Your task to perform on an android device: When is my next meeting? Image 0: 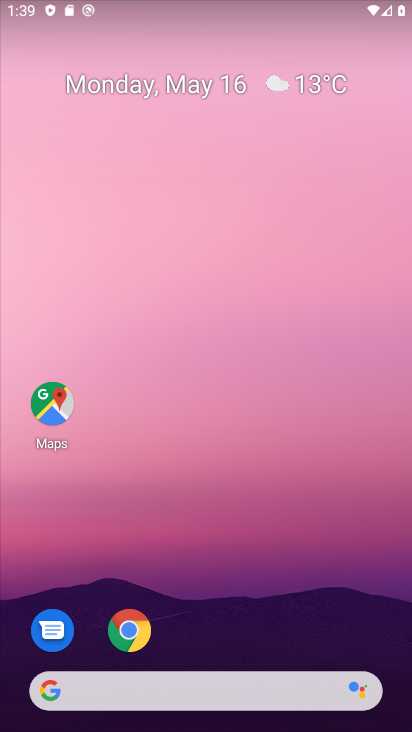
Step 0: drag from (353, 609) to (338, 220)
Your task to perform on an android device: When is my next meeting? Image 1: 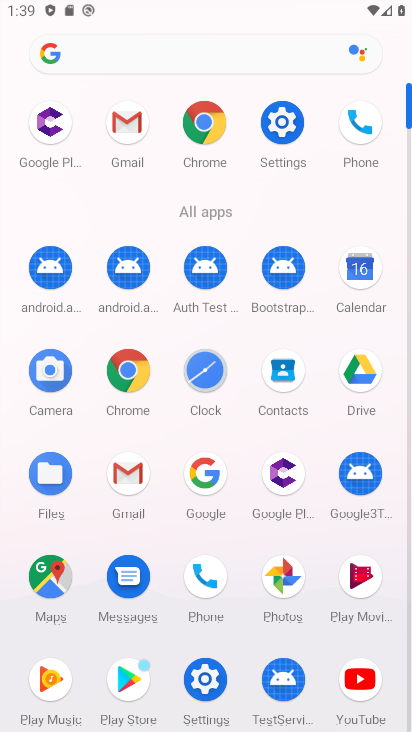
Step 1: click (358, 274)
Your task to perform on an android device: When is my next meeting? Image 2: 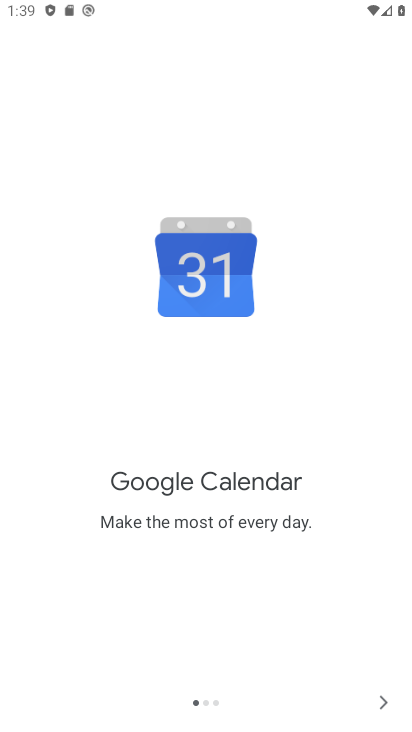
Step 2: click (377, 710)
Your task to perform on an android device: When is my next meeting? Image 3: 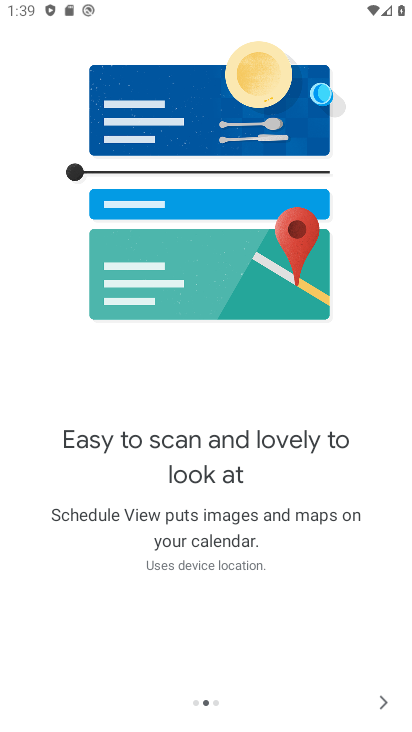
Step 3: click (380, 706)
Your task to perform on an android device: When is my next meeting? Image 4: 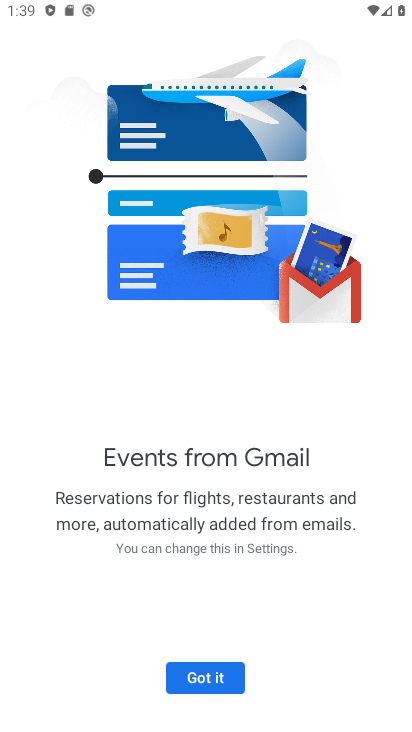
Step 4: click (236, 671)
Your task to perform on an android device: When is my next meeting? Image 5: 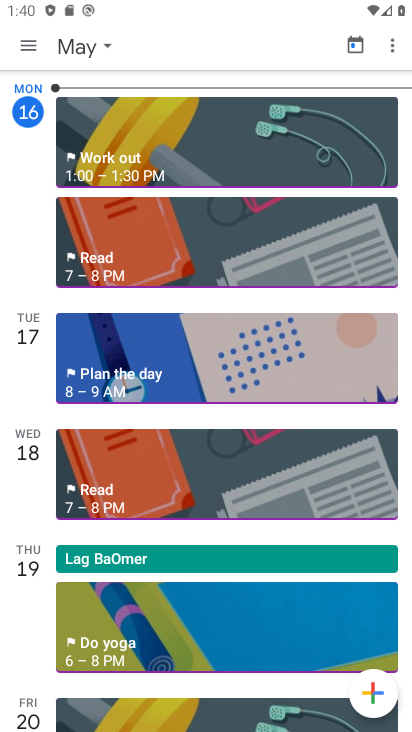
Step 5: drag from (111, 513) to (170, 282)
Your task to perform on an android device: When is my next meeting? Image 6: 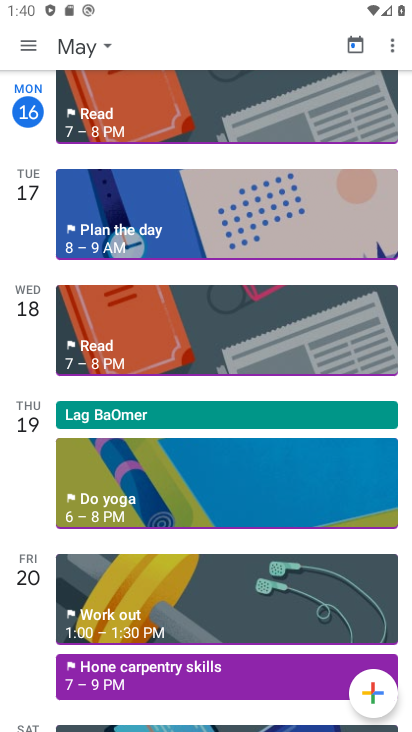
Step 6: drag from (165, 646) to (221, 373)
Your task to perform on an android device: When is my next meeting? Image 7: 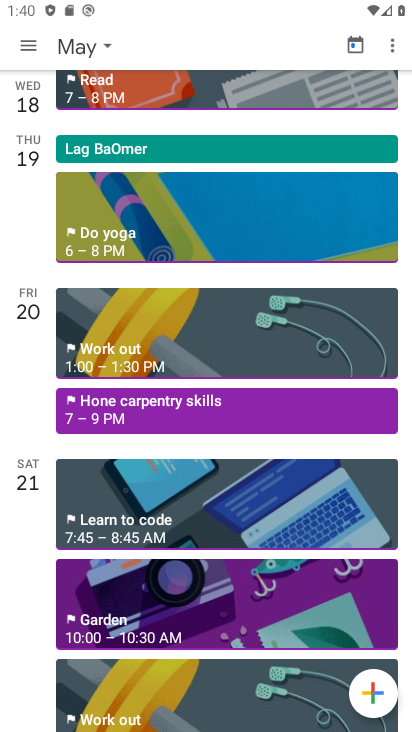
Step 7: drag from (233, 661) to (272, 393)
Your task to perform on an android device: When is my next meeting? Image 8: 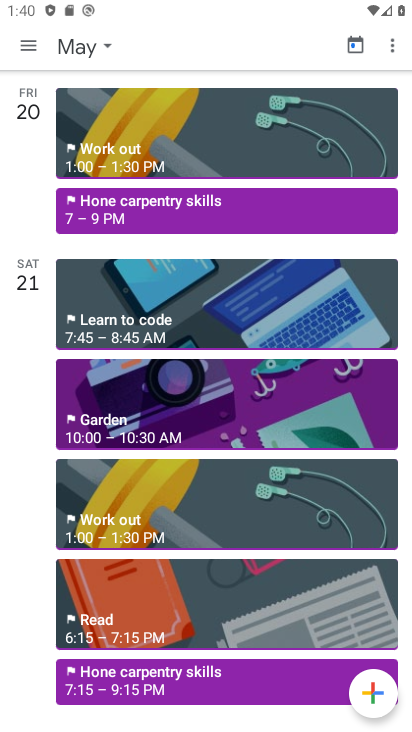
Step 8: drag from (244, 665) to (298, 434)
Your task to perform on an android device: When is my next meeting? Image 9: 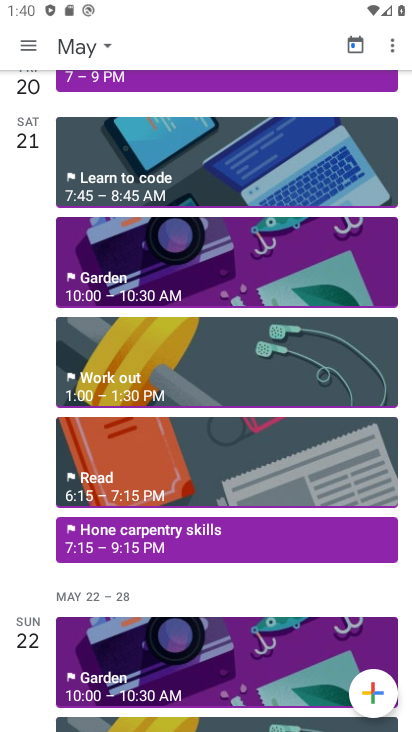
Step 9: drag from (255, 632) to (280, 342)
Your task to perform on an android device: When is my next meeting? Image 10: 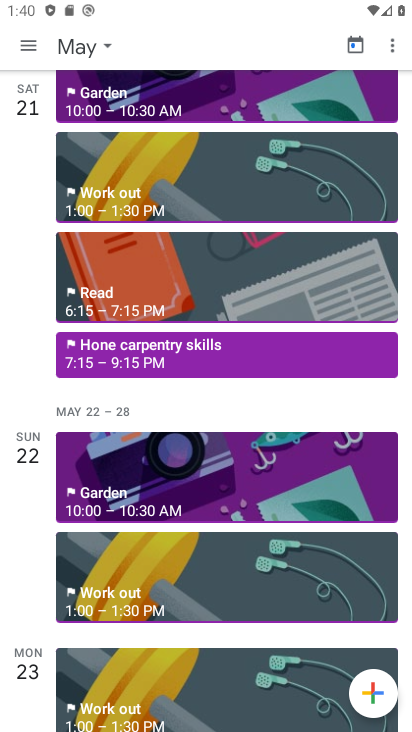
Step 10: drag from (264, 618) to (284, 344)
Your task to perform on an android device: When is my next meeting? Image 11: 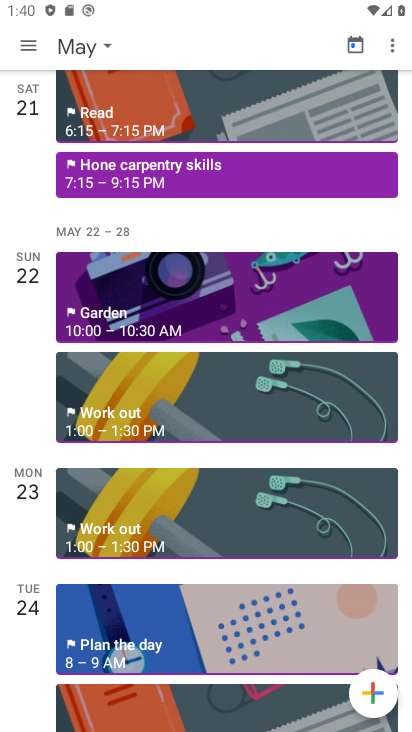
Step 11: drag from (252, 659) to (291, 297)
Your task to perform on an android device: When is my next meeting? Image 12: 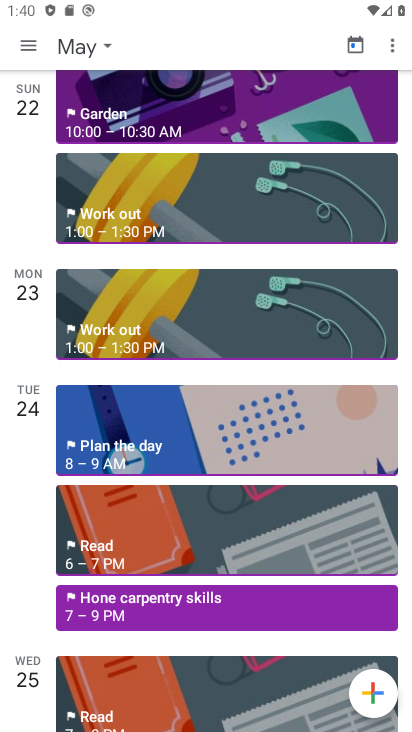
Step 12: drag from (285, 636) to (314, 324)
Your task to perform on an android device: When is my next meeting? Image 13: 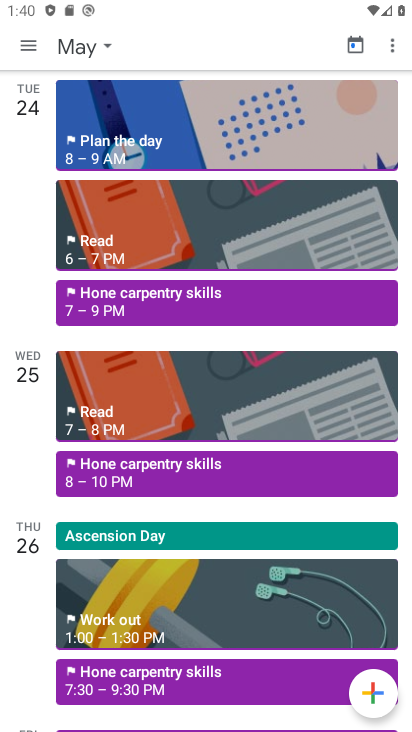
Step 13: drag from (274, 594) to (297, 287)
Your task to perform on an android device: When is my next meeting? Image 14: 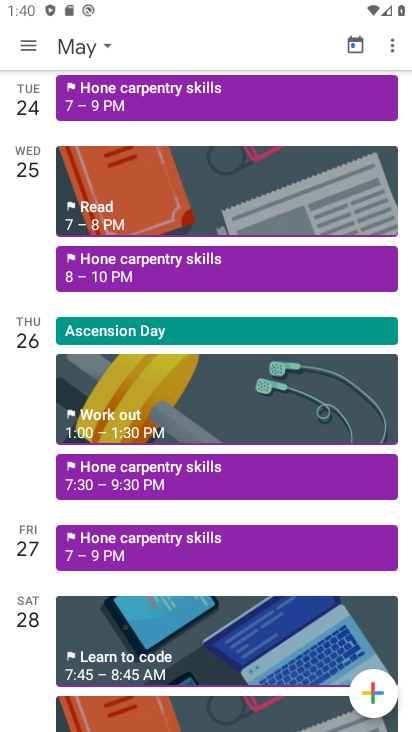
Step 14: drag from (267, 643) to (326, 293)
Your task to perform on an android device: When is my next meeting? Image 15: 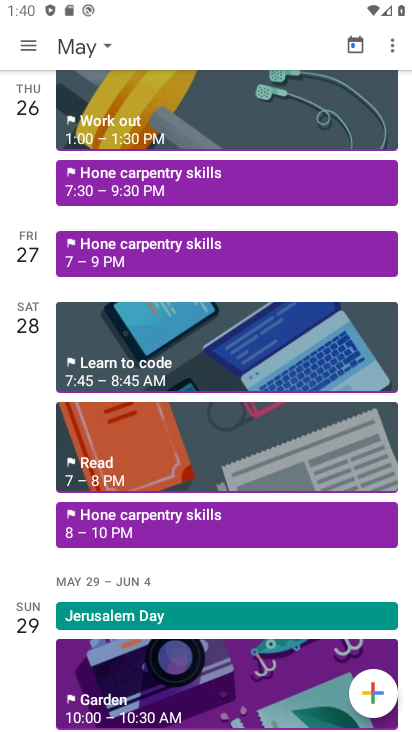
Step 15: drag from (263, 677) to (323, 327)
Your task to perform on an android device: When is my next meeting? Image 16: 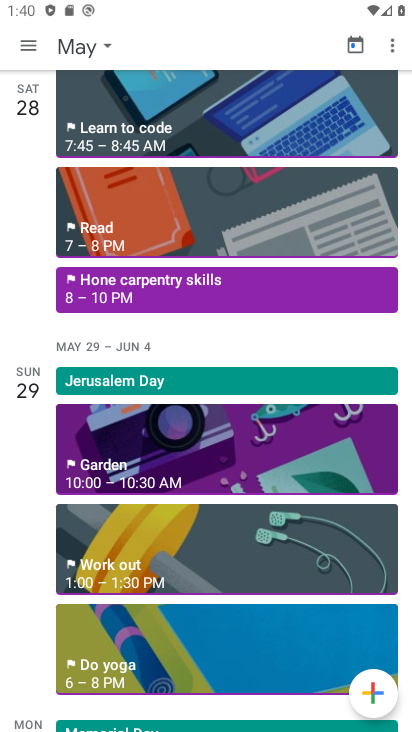
Step 16: drag from (253, 660) to (314, 323)
Your task to perform on an android device: When is my next meeting? Image 17: 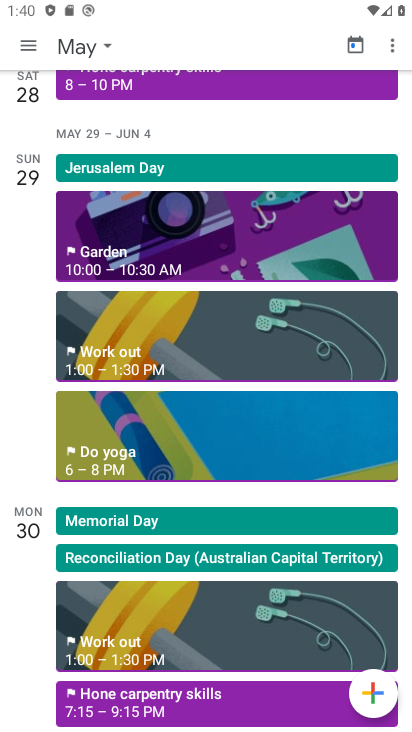
Step 17: drag from (243, 649) to (295, 293)
Your task to perform on an android device: When is my next meeting? Image 18: 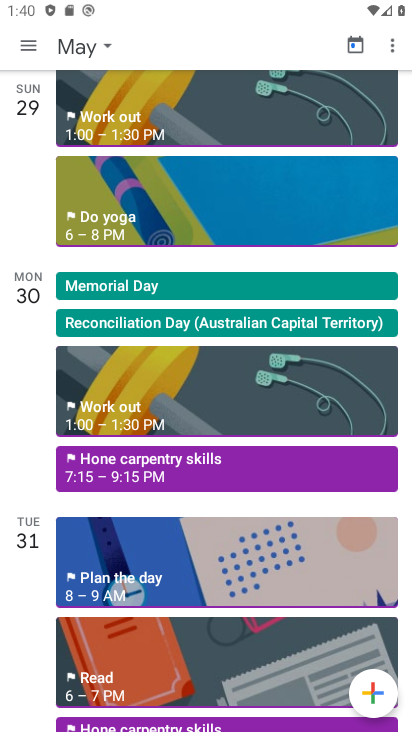
Step 18: drag from (263, 588) to (292, 310)
Your task to perform on an android device: When is my next meeting? Image 19: 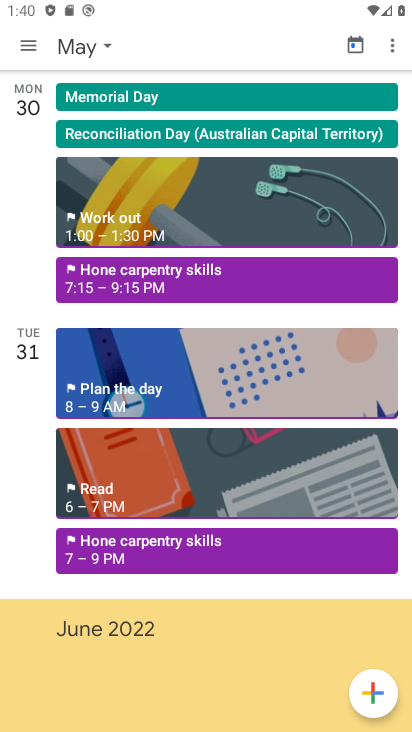
Step 19: drag from (285, 578) to (350, 206)
Your task to perform on an android device: When is my next meeting? Image 20: 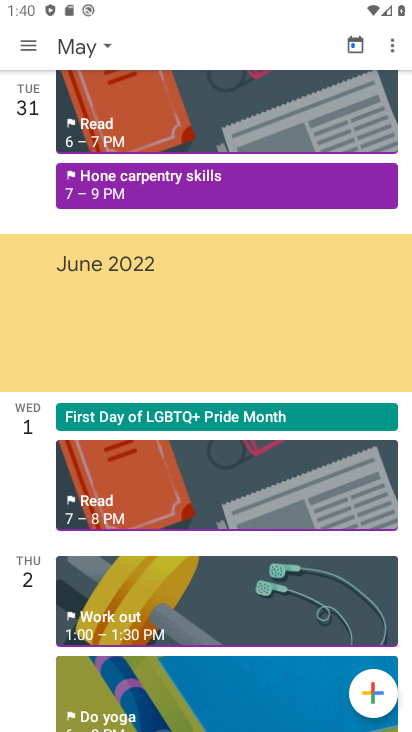
Step 20: drag from (267, 672) to (297, 351)
Your task to perform on an android device: When is my next meeting? Image 21: 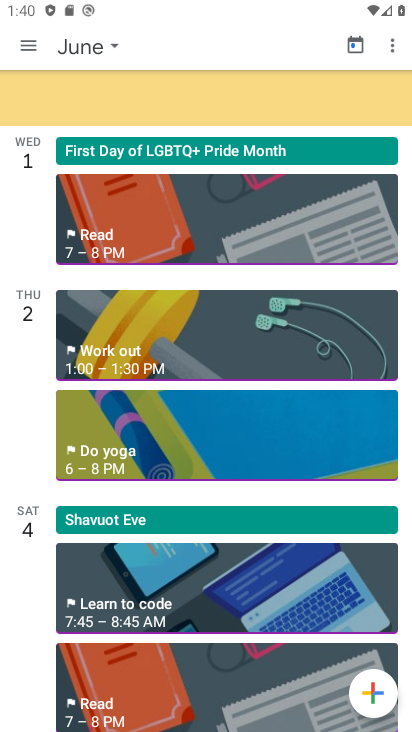
Step 21: drag from (256, 653) to (271, 294)
Your task to perform on an android device: When is my next meeting? Image 22: 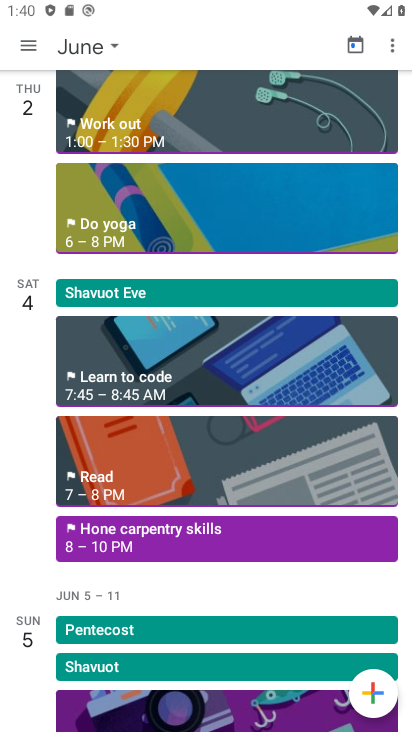
Step 22: drag from (227, 643) to (286, 266)
Your task to perform on an android device: When is my next meeting? Image 23: 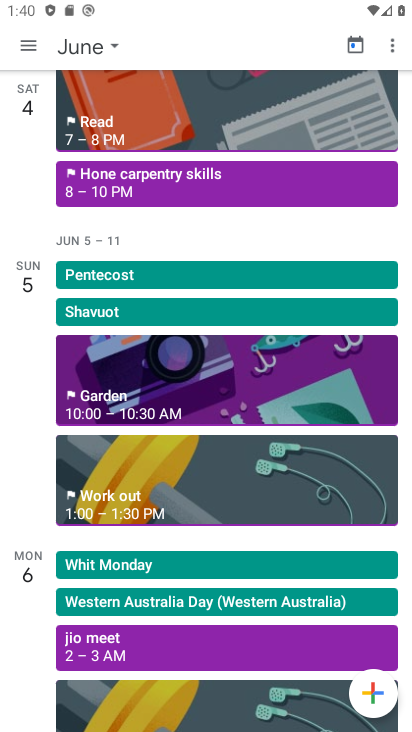
Step 23: drag from (258, 645) to (311, 304)
Your task to perform on an android device: When is my next meeting? Image 24: 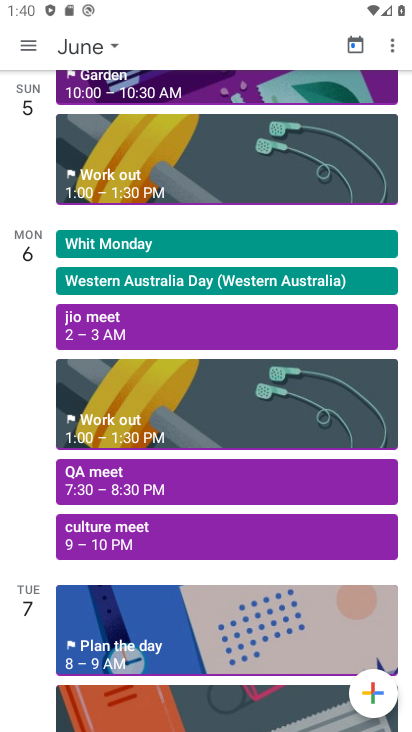
Step 24: click (126, 323)
Your task to perform on an android device: When is my next meeting? Image 25: 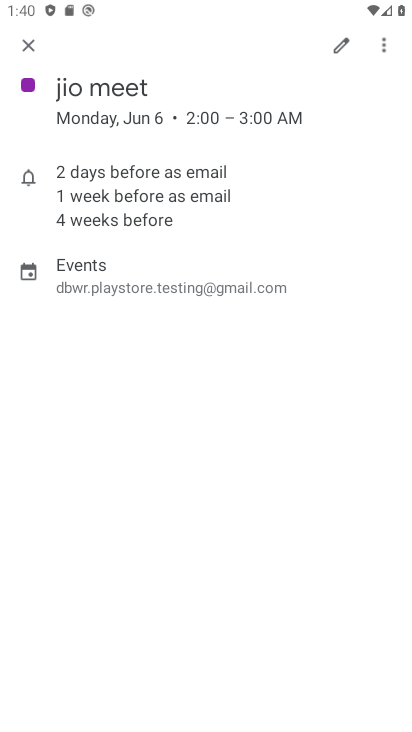
Step 25: task complete